Your task to perform on an android device: change notifications settings Image 0: 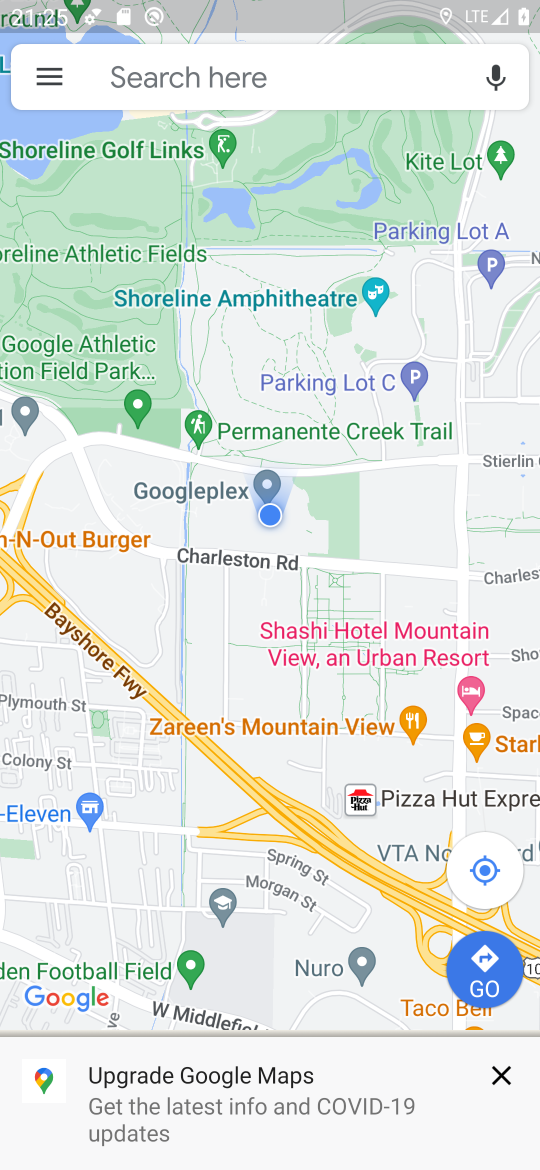
Step 0: press home button
Your task to perform on an android device: change notifications settings Image 1: 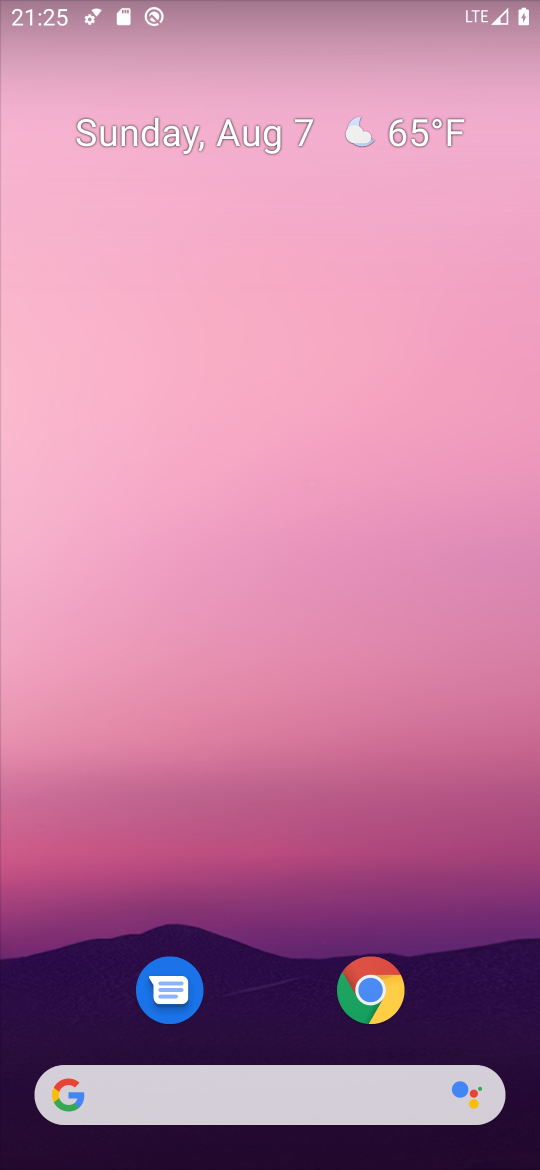
Step 1: drag from (243, 1016) to (217, 5)
Your task to perform on an android device: change notifications settings Image 2: 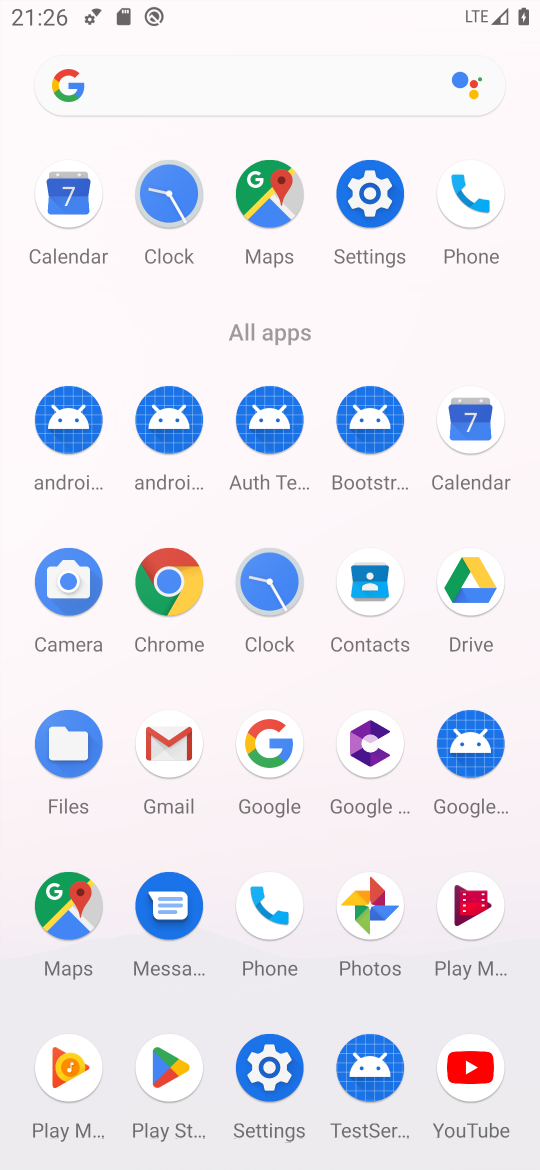
Step 2: click (369, 180)
Your task to perform on an android device: change notifications settings Image 3: 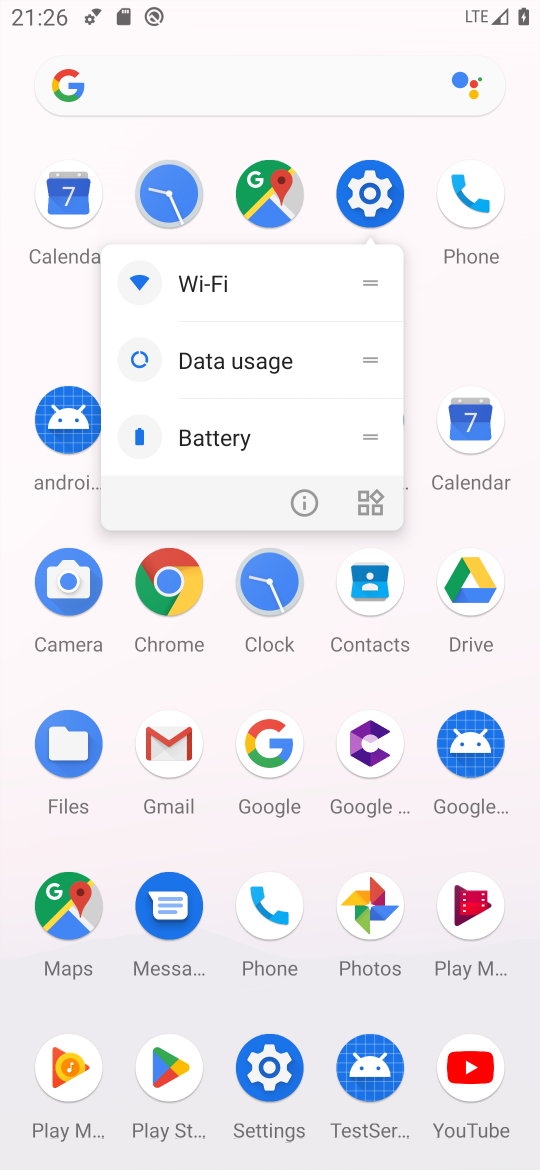
Step 3: click (369, 182)
Your task to perform on an android device: change notifications settings Image 4: 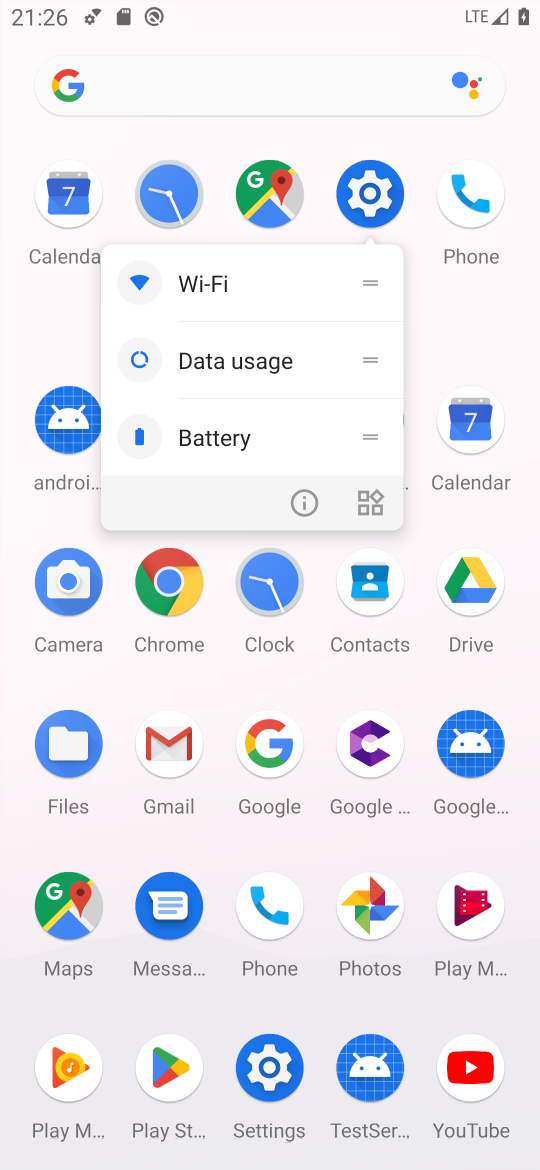
Step 4: click (369, 182)
Your task to perform on an android device: change notifications settings Image 5: 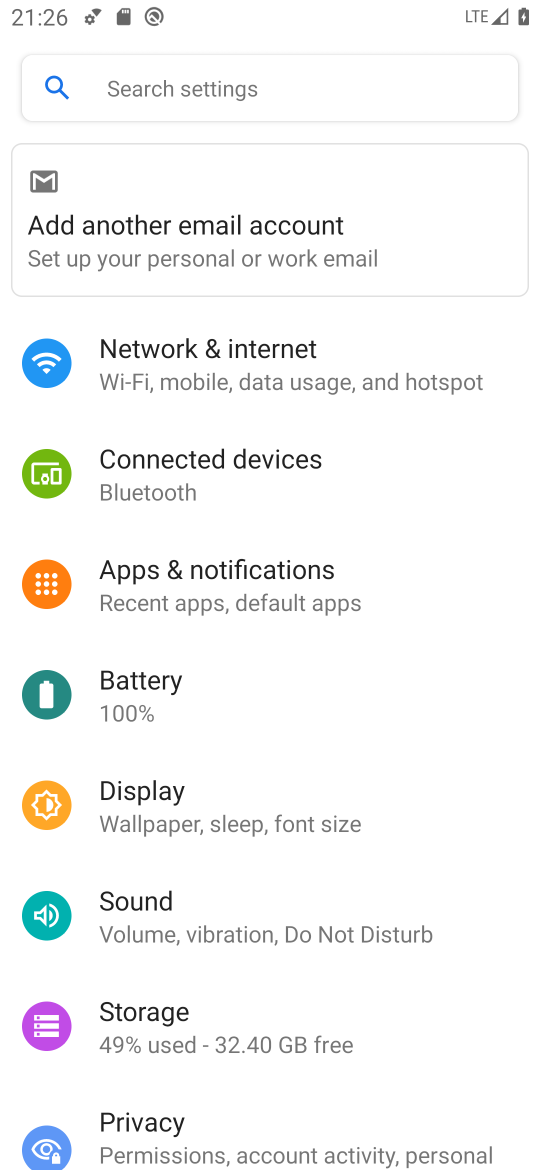
Step 5: click (336, 573)
Your task to perform on an android device: change notifications settings Image 6: 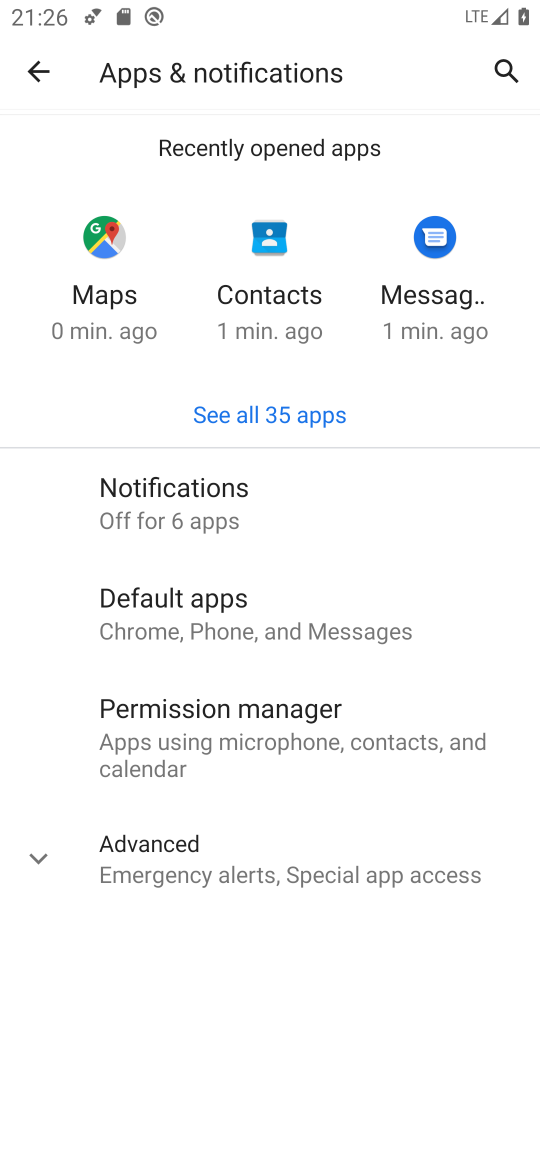
Step 6: click (222, 503)
Your task to perform on an android device: change notifications settings Image 7: 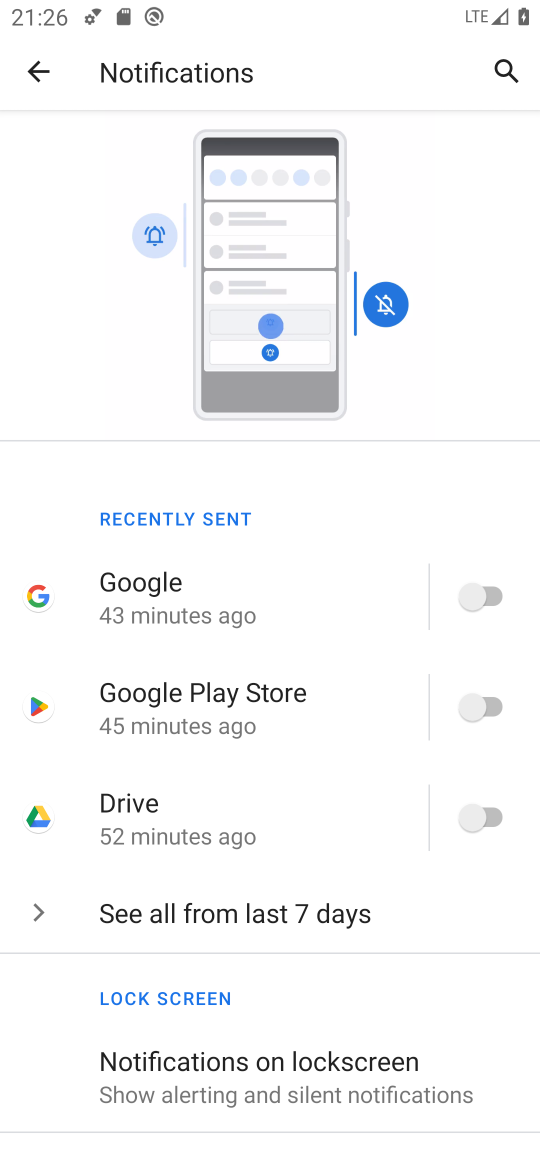
Step 7: click (229, 898)
Your task to perform on an android device: change notifications settings Image 8: 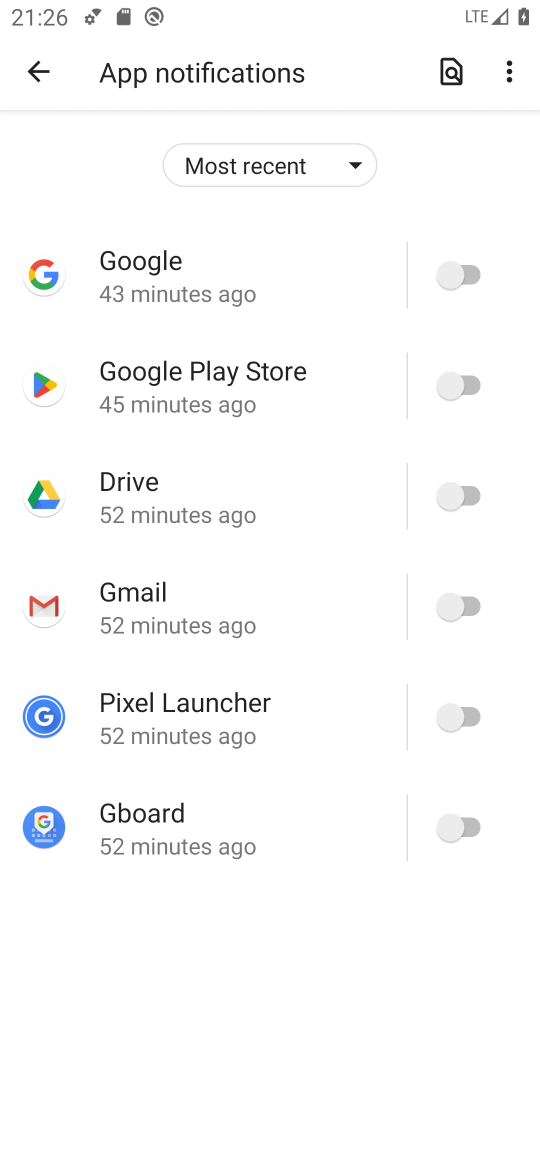
Step 8: click (467, 267)
Your task to perform on an android device: change notifications settings Image 9: 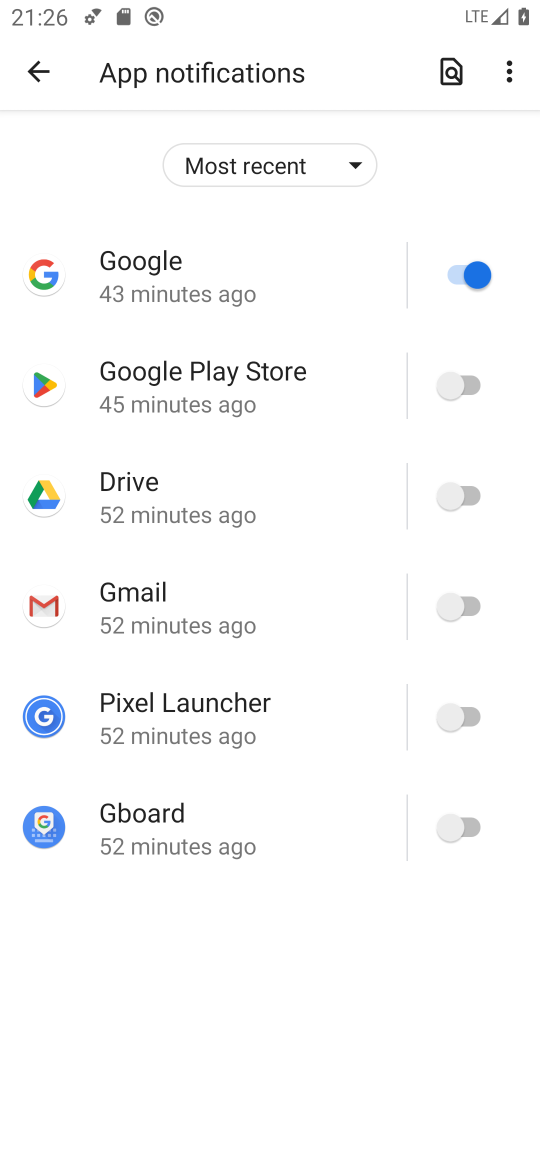
Step 9: click (463, 374)
Your task to perform on an android device: change notifications settings Image 10: 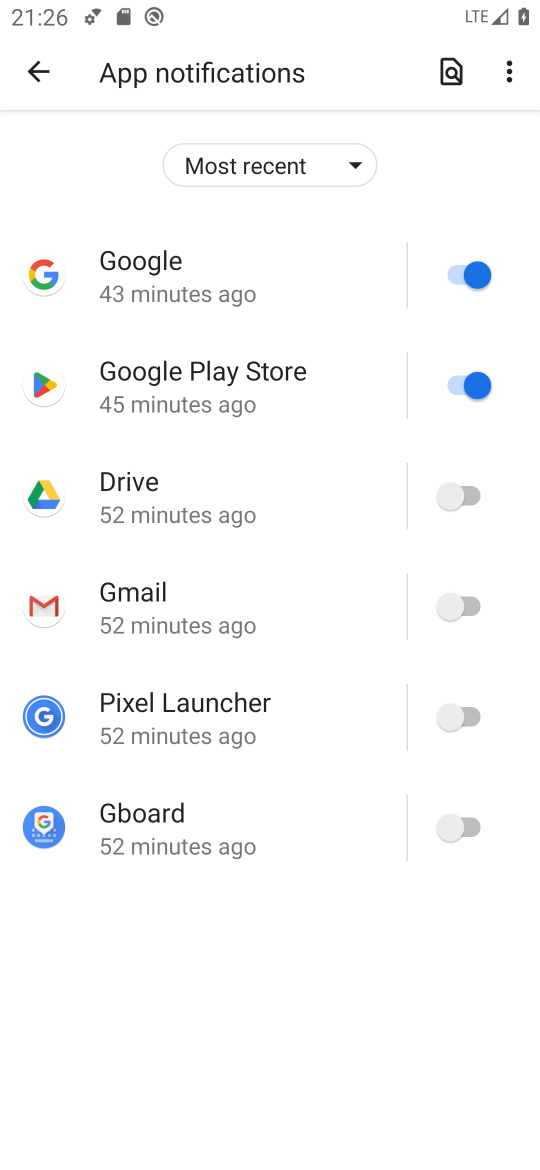
Step 10: click (469, 495)
Your task to perform on an android device: change notifications settings Image 11: 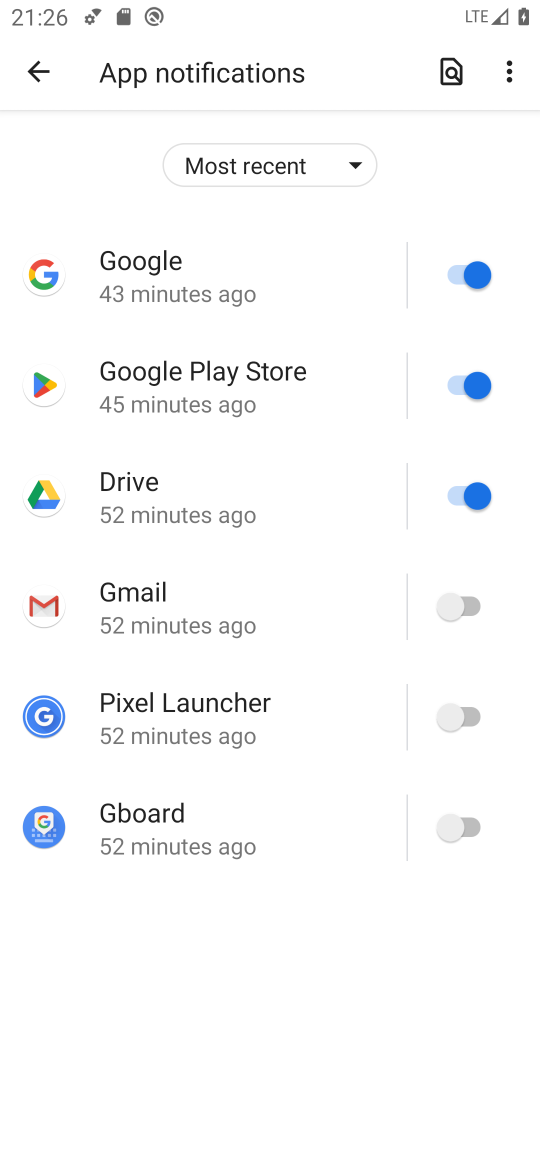
Step 11: click (462, 605)
Your task to perform on an android device: change notifications settings Image 12: 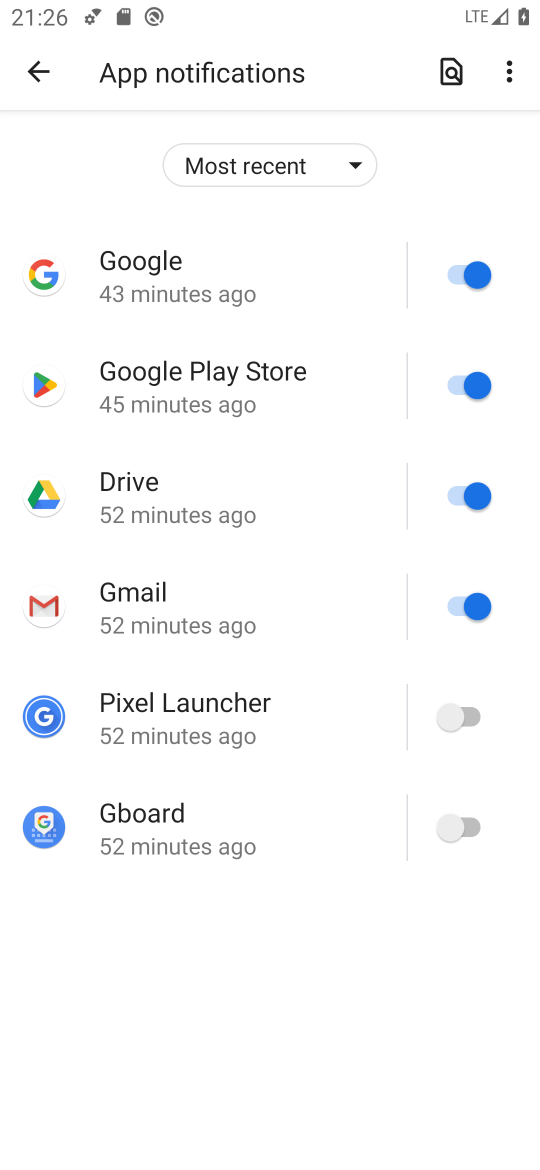
Step 12: click (462, 712)
Your task to perform on an android device: change notifications settings Image 13: 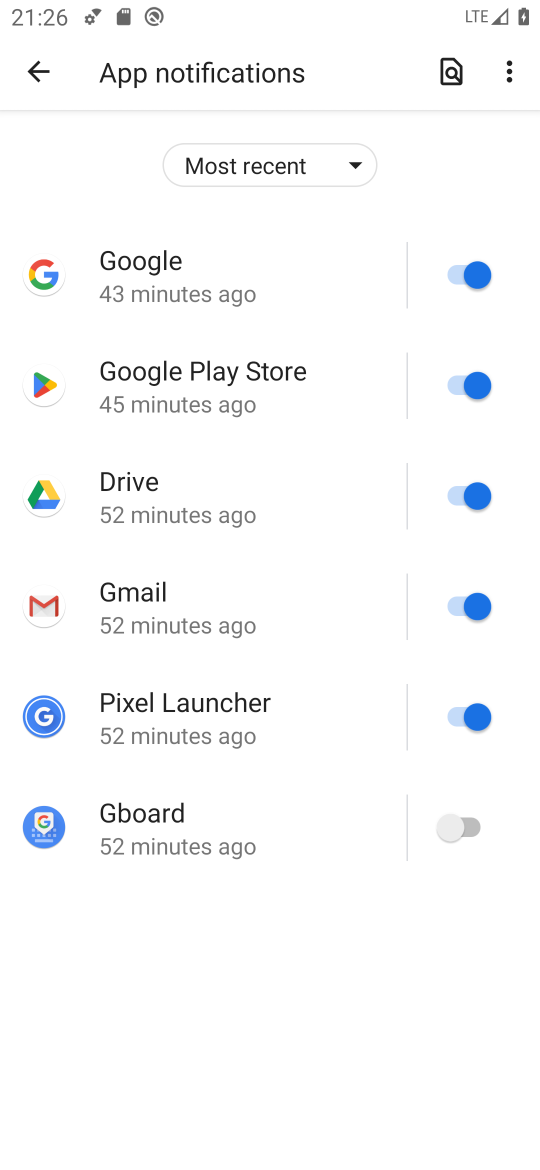
Step 13: click (456, 830)
Your task to perform on an android device: change notifications settings Image 14: 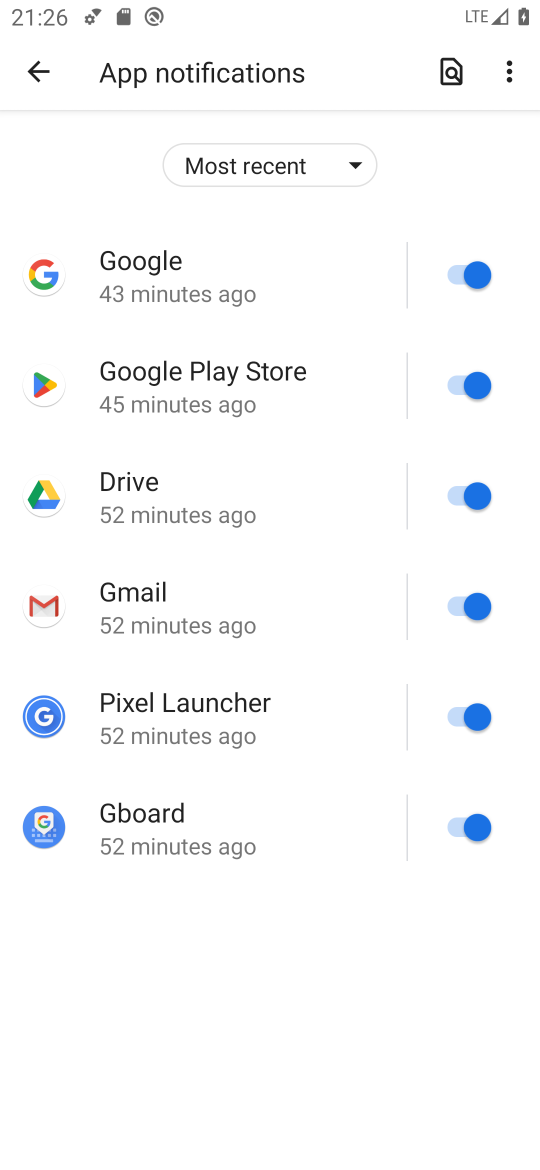
Step 14: task complete